Your task to perform on an android device: What's the weather like in Singapore? Image 0: 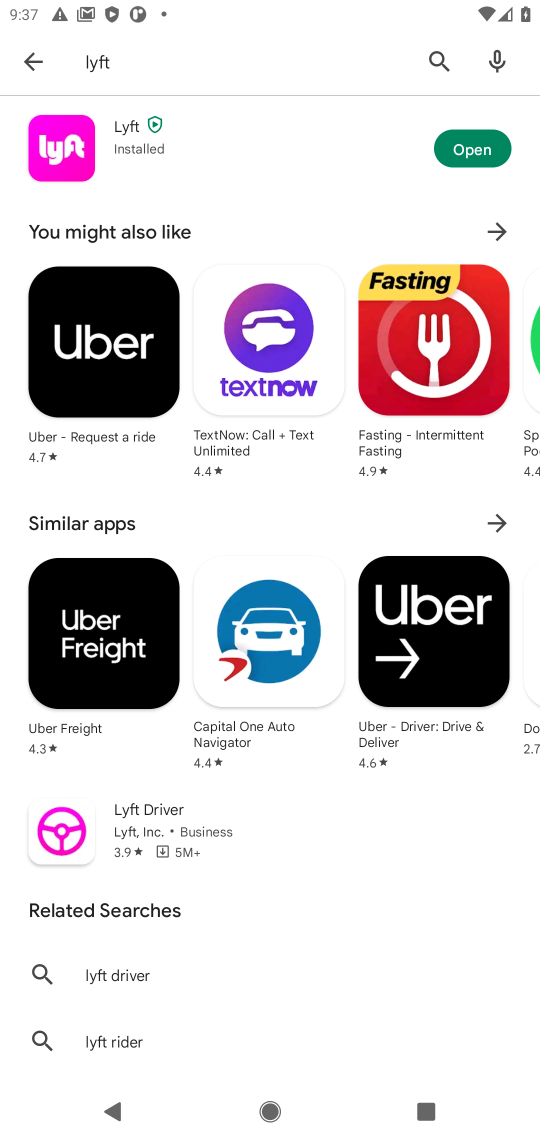
Step 0: press home button
Your task to perform on an android device: What's the weather like in Singapore? Image 1: 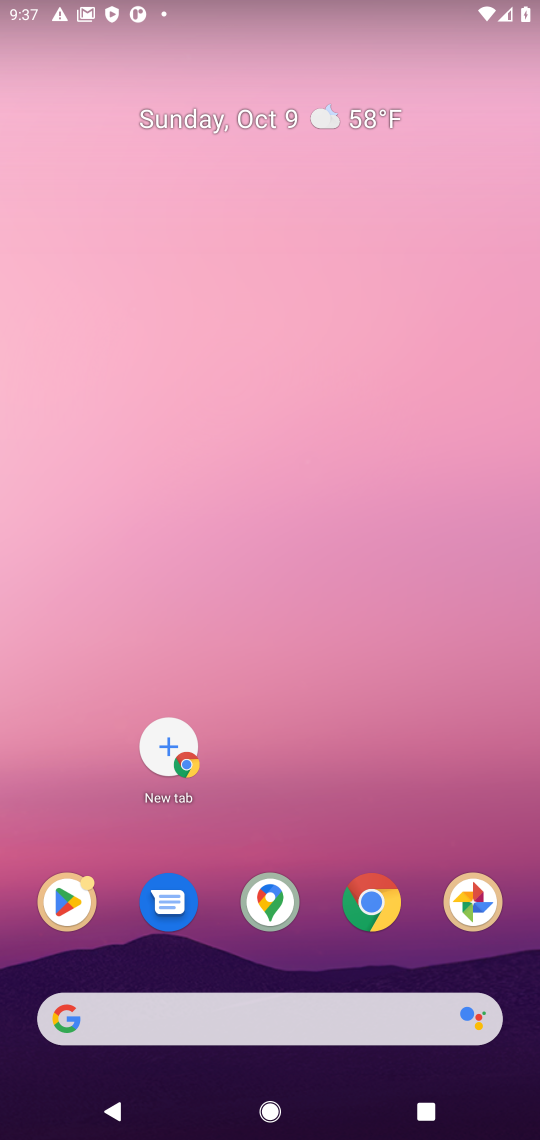
Step 1: click (366, 904)
Your task to perform on an android device: What's the weather like in Singapore? Image 2: 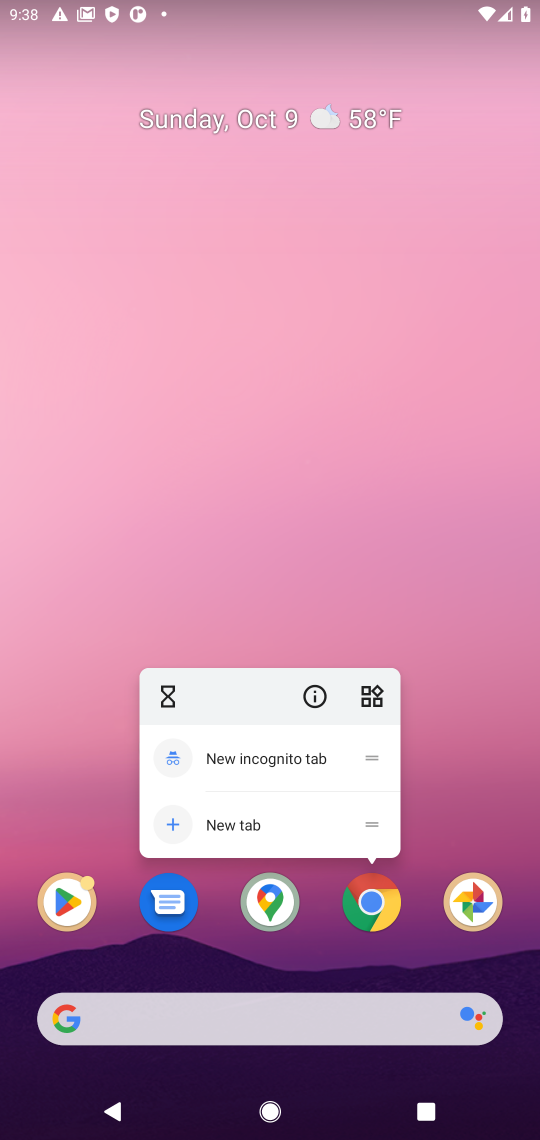
Step 2: click (380, 906)
Your task to perform on an android device: What's the weather like in Singapore? Image 3: 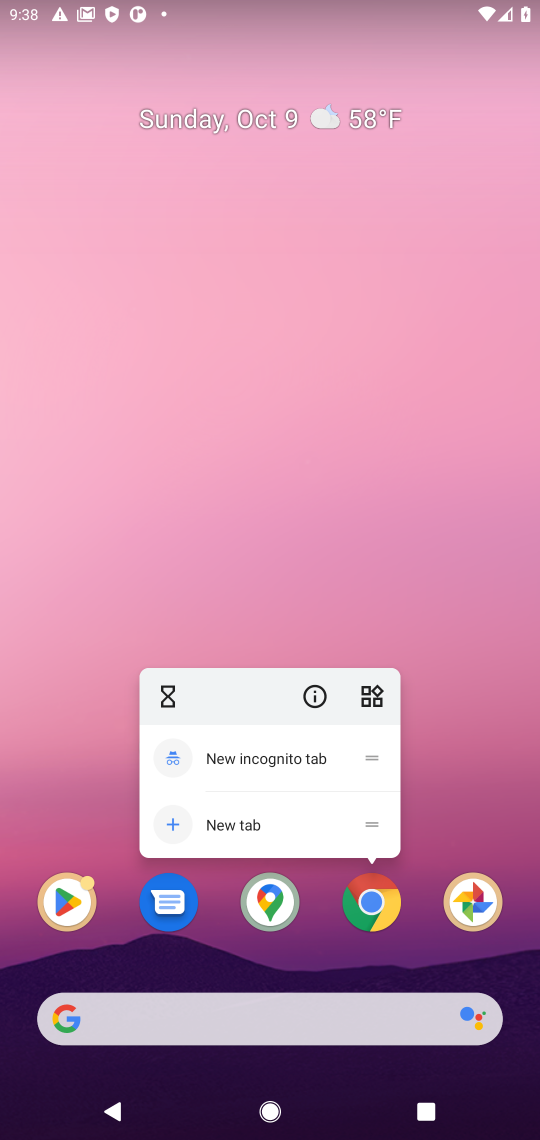
Step 3: click (375, 908)
Your task to perform on an android device: What's the weather like in Singapore? Image 4: 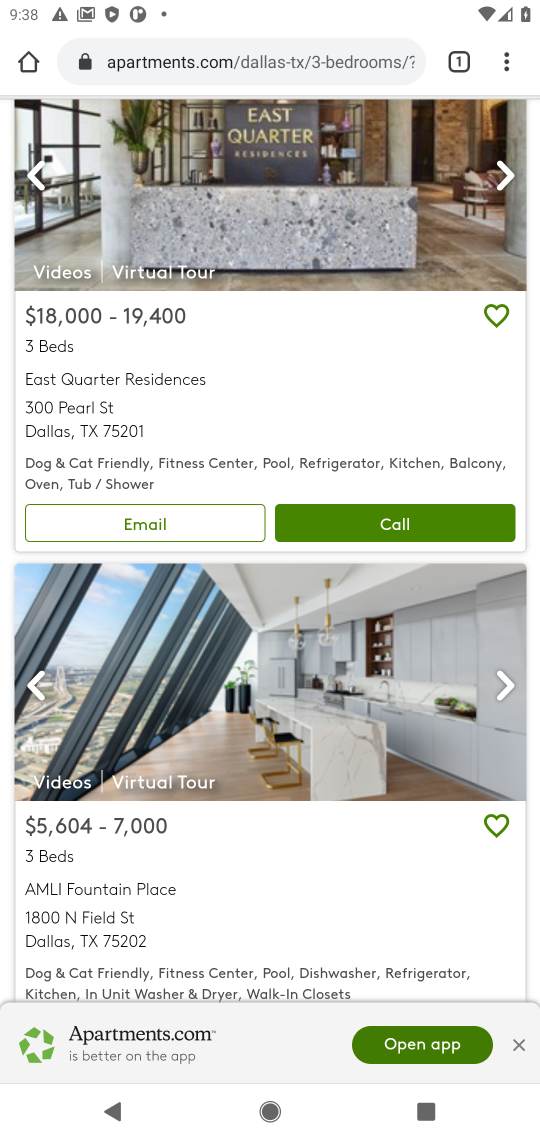
Step 4: click (159, 69)
Your task to perform on an android device: What's the weather like in Singapore? Image 5: 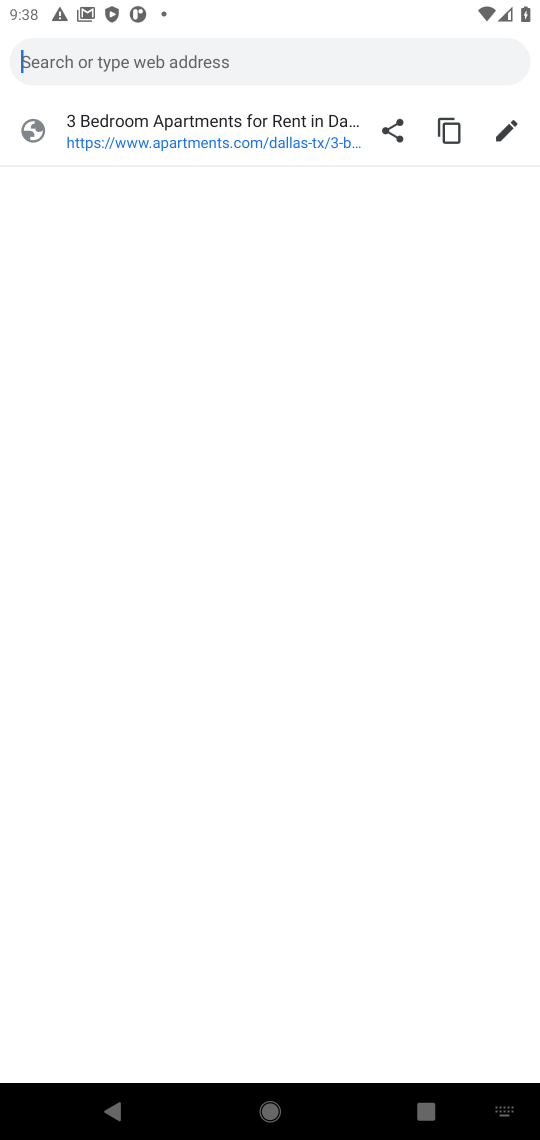
Step 5: type "weather like in Singapore"
Your task to perform on an android device: What's the weather like in Singapore? Image 6: 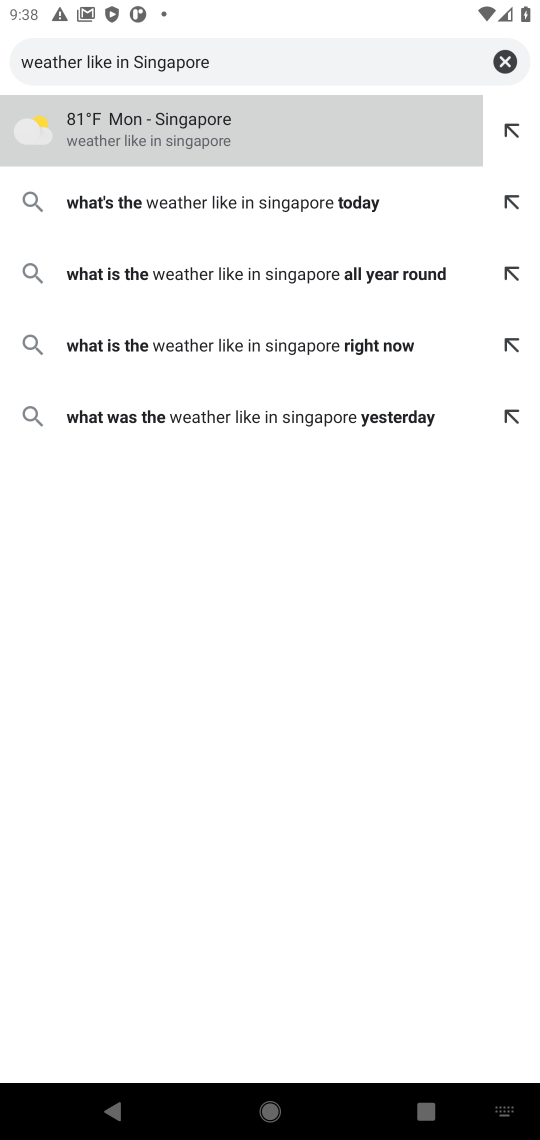
Step 6: type ""
Your task to perform on an android device: What's the weather like in Singapore? Image 7: 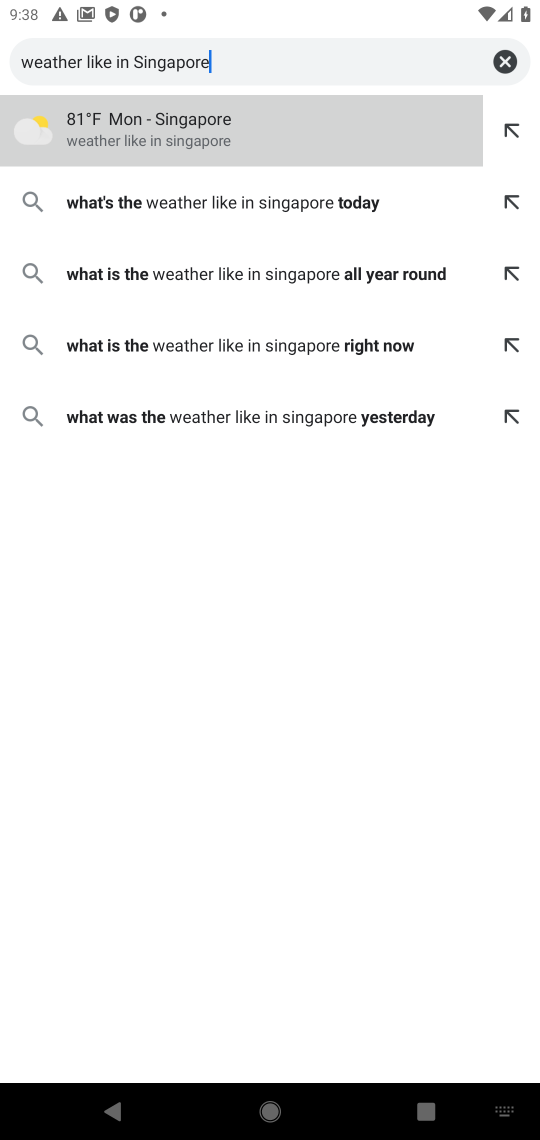
Step 7: click (209, 128)
Your task to perform on an android device: What's the weather like in Singapore? Image 8: 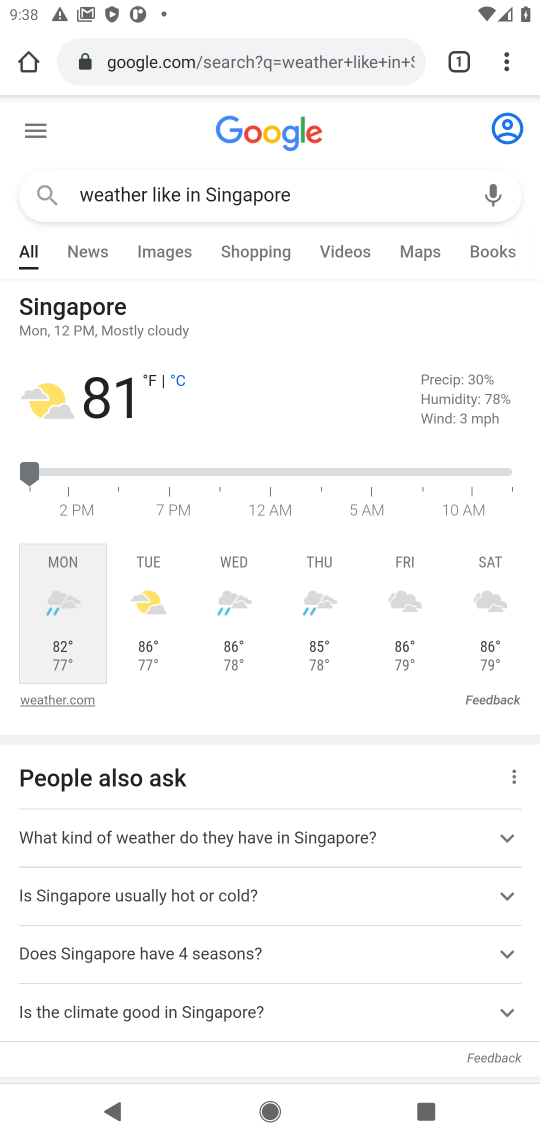
Step 8: task complete